Your task to perform on an android device: Open CNN.com Image 0: 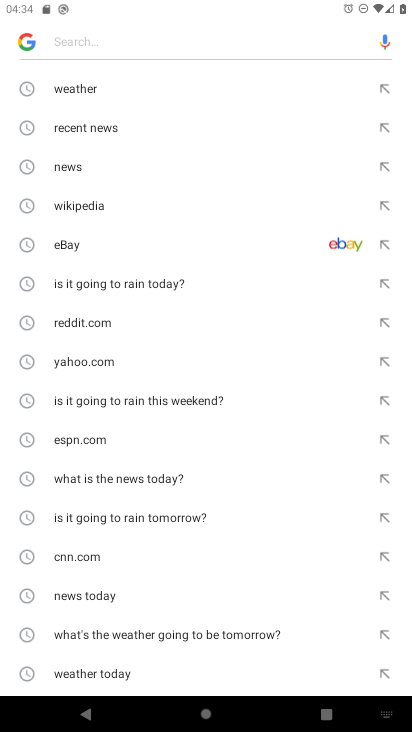
Step 0: press back button
Your task to perform on an android device: Open CNN.com Image 1: 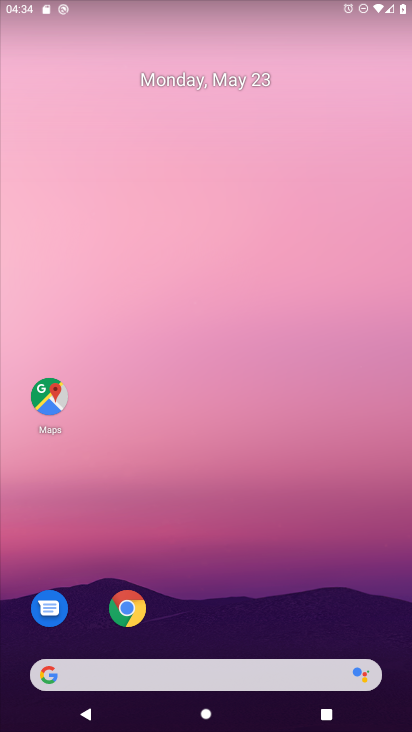
Step 1: click (128, 605)
Your task to perform on an android device: Open CNN.com Image 2: 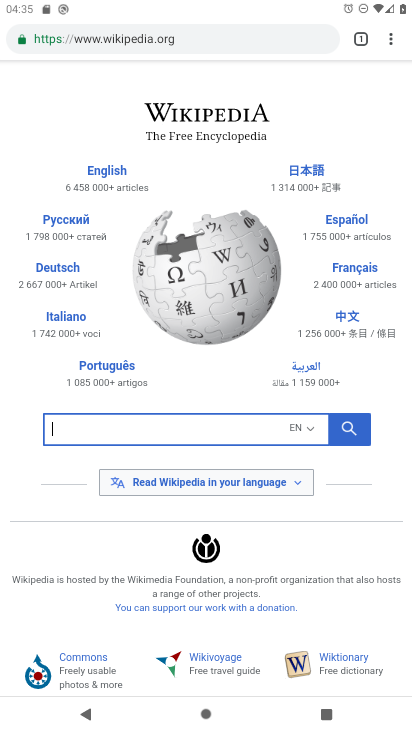
Step 2: click (231, 47)
Your task to perform on an android device: Open CNN.com Image 3: 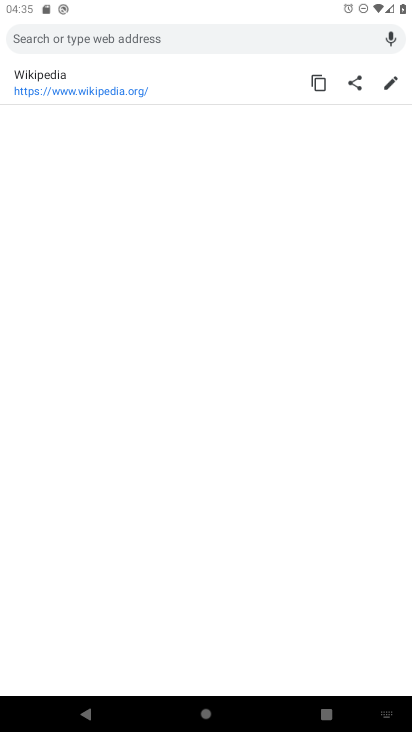
Step 3: type "CNN.com"
Your task to perform on an android device: Open CNN.com Image 4: 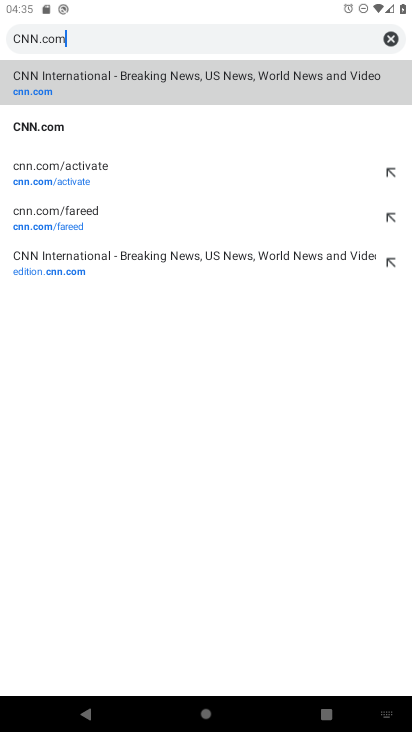
Step 4: click (48, 121)
Your task to perform on an android device: Open CNN.com Image 5: 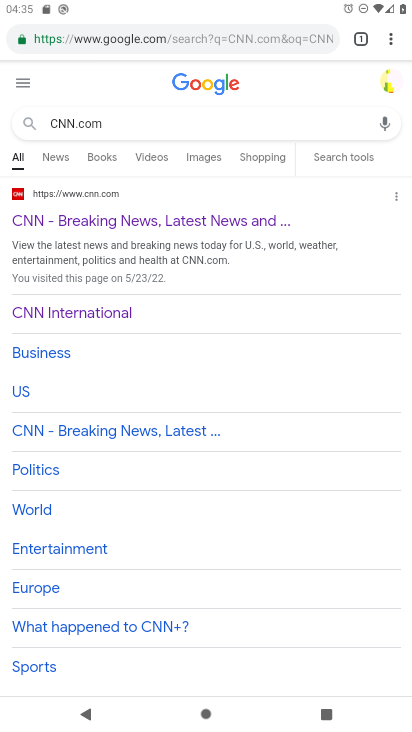
Step 5: click (45, 231)
Your task to perform on an android device: Open CNN.com Image 6: 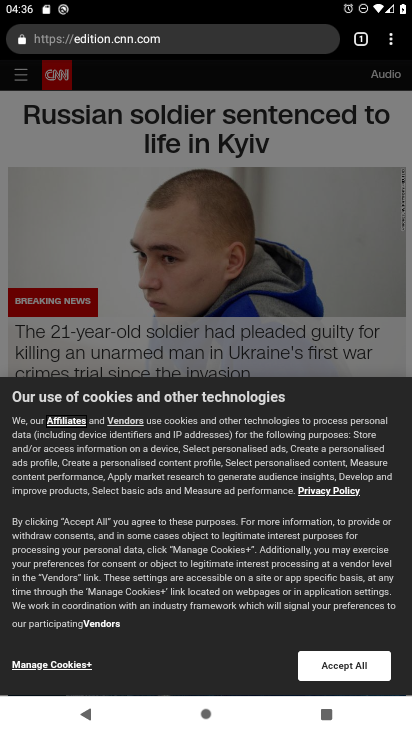
Step 6: task complete